Your task to perform on an android device: Open wifi settings Image 0: 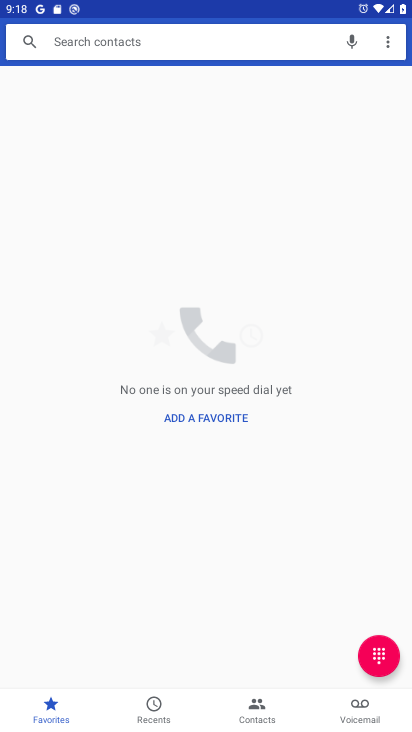
Step 0: drag from (313, 3) to (324, 521)
Your task to perform on an android device: Open wifi settings Image 1: 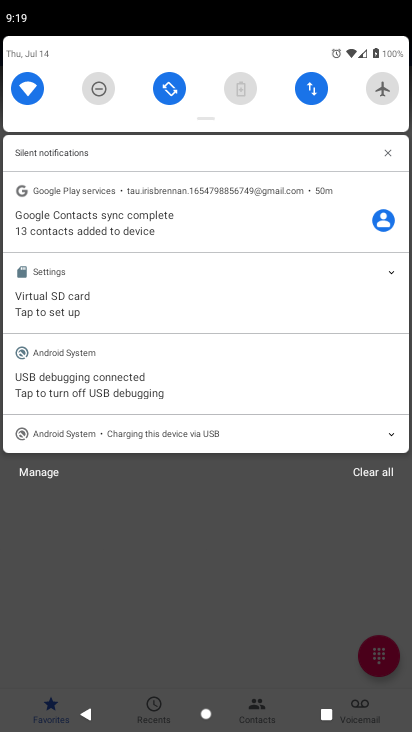
Step 1: click (38, 92)
Your task to perform on an android device: Open wifi settings Image 2: 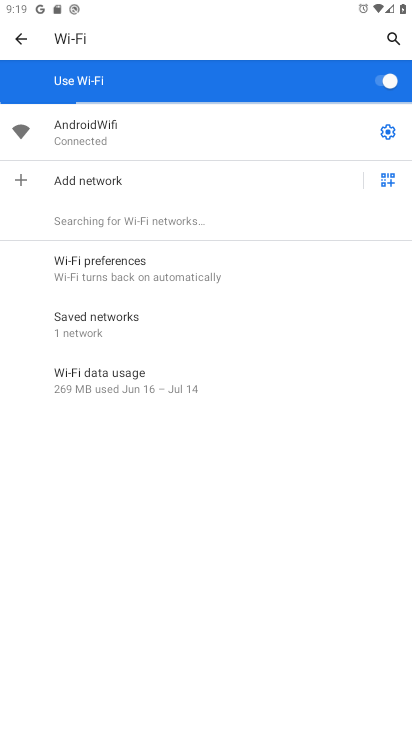
Step 2: task complete